Your task to perform on an android device: What's the weather? Image 0: 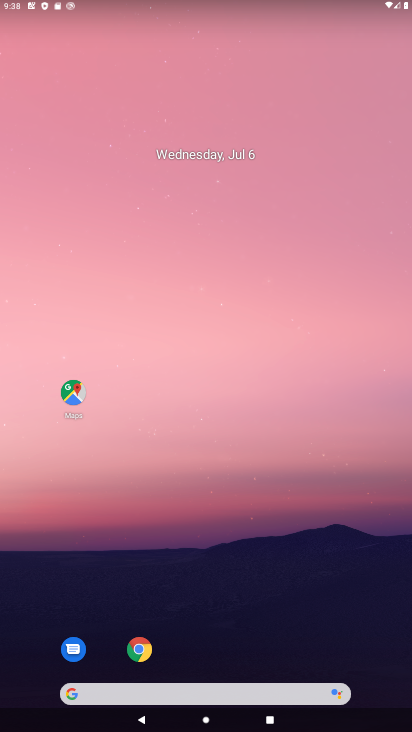
Step 0: drag from (226, 645) to (245, 178)
Your task to perform on an android device: What's the weather? Image 1: 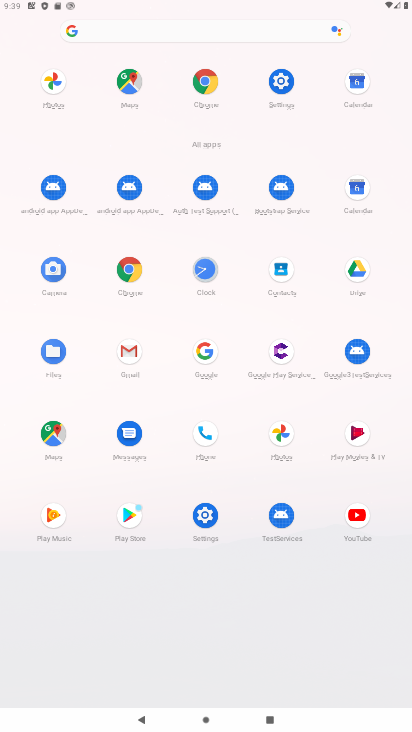
Step 1: click (203, 348)
Your task to perform on an android device: What's the weather? Image 2: 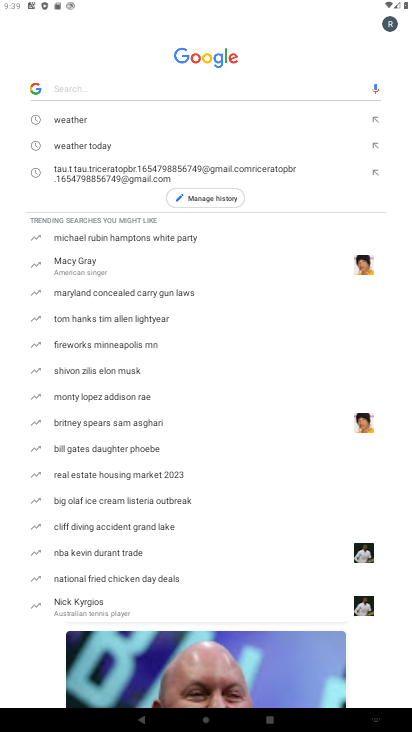
Step 2: click (80, 119)
Your task to perform on an android device: What's the weather? Image 3: 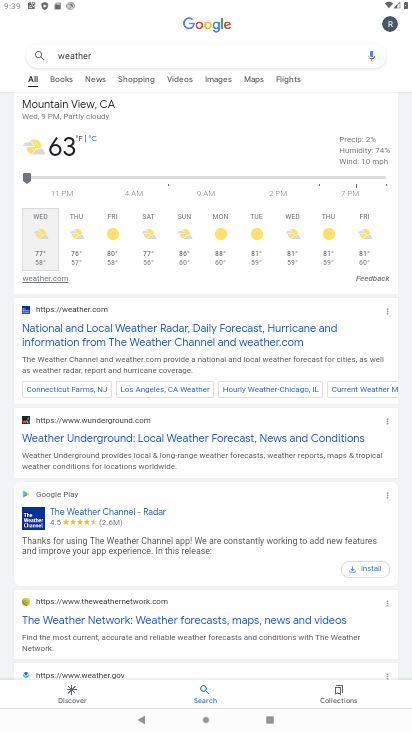
Step 3: task complete